Your task to perform on an android device: turn on airplane mode Image 0: 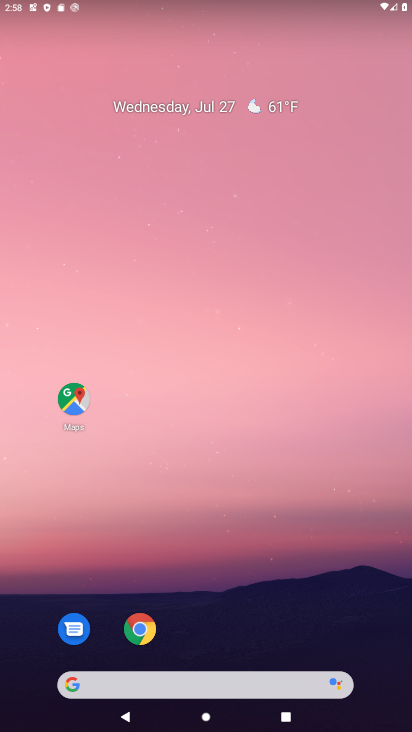
Step 0: drag from (169, 187) to (163, 24)
Your task to perform on an android device: turn on airplane mode Image 1: 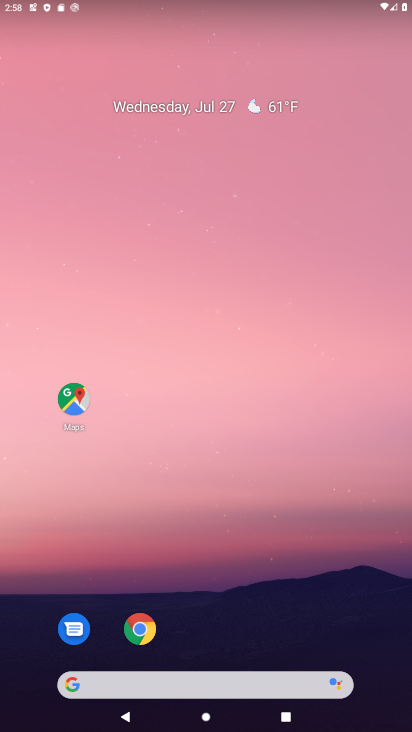
Step 1: drag from (211, 369) to (248, 14)
Your task to perform on an android device: turn on airplane mode Image 2: 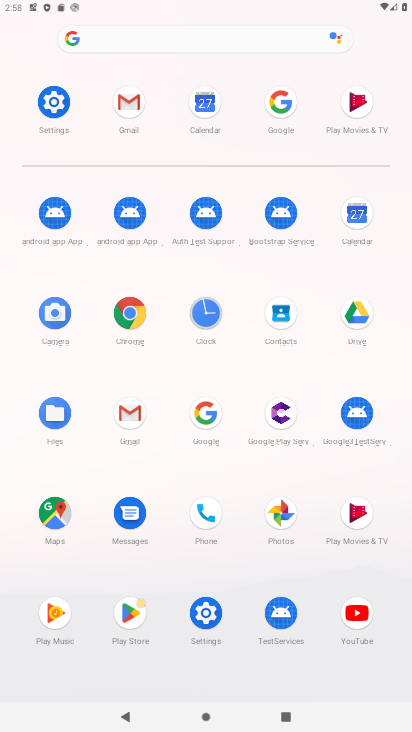
Step 2: click (54, 100)
Your task to perform on an android device: turn on airplane mode Image 3: 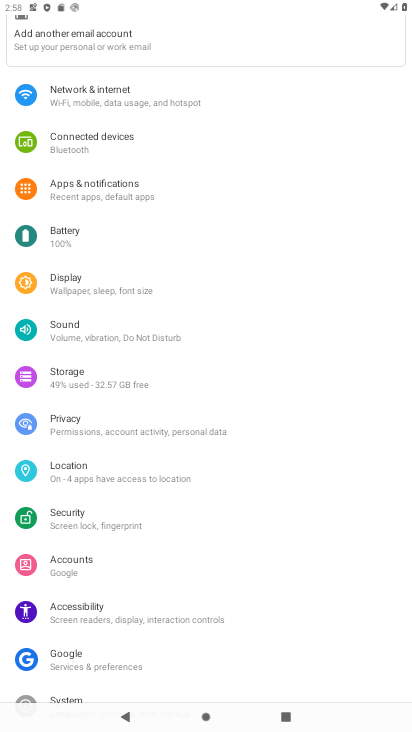
Step 3: click (120, 94)
Your task to perform on an android device: turn on airplane mode Image 4: 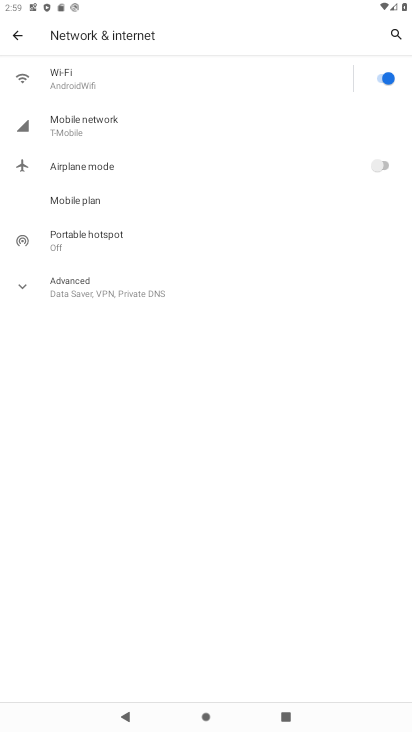
Step 4: click (378, 164)
Your task to perform on an android device: turn on airplane mode Image 5: 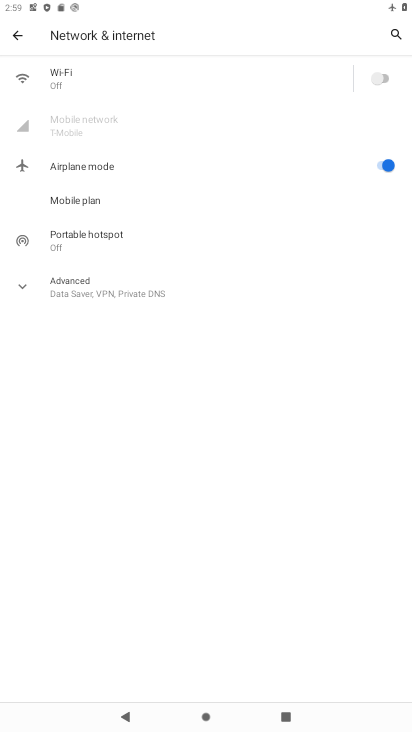
Step 5: task complete